Your task to perform on an android device: change the clock display to digital Image 0: 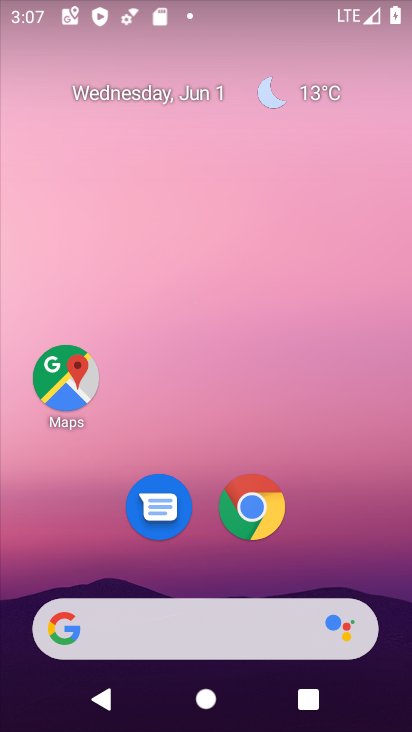
Step 0: drag from (334, 586) to (183, 237)
Your task to perform on an android device: change the clock display to digital Image 1: 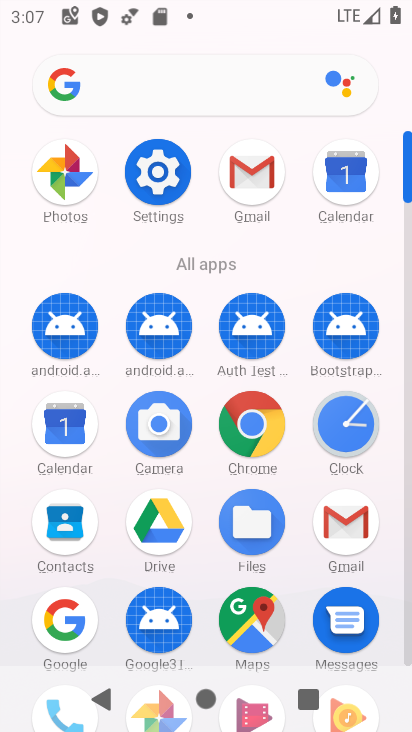
Step 1: click (328, 445)
Your task to perform on an android device: change the clock display to digital Image 2: 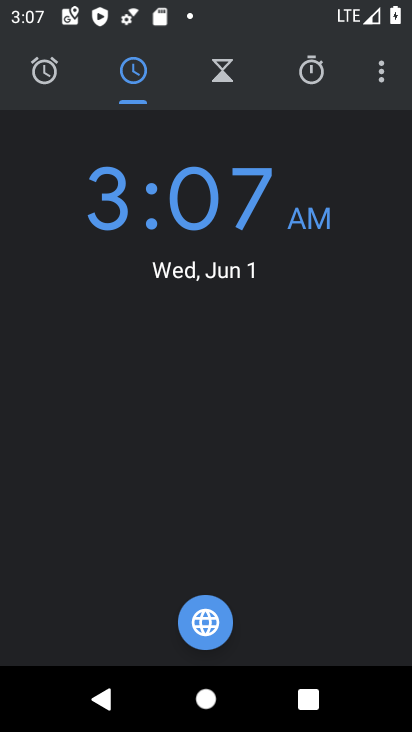
Step 2: click (384, 69)
Your task to perform on an android device: change the clock display to digital Image 3: 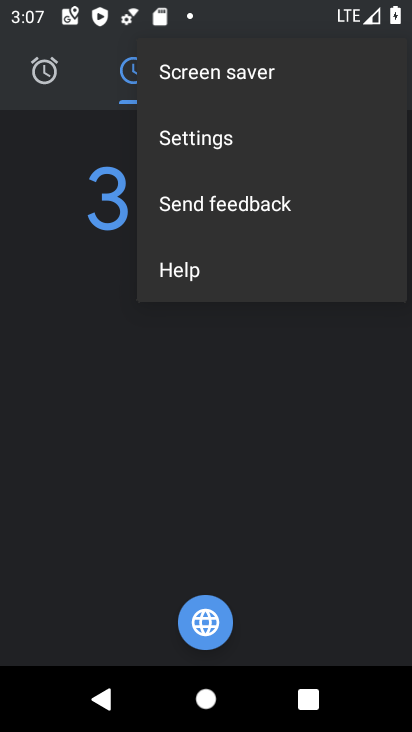
Step 3: click (235, 142)
Your task to perform on an android device: change the clock display to digital Image 4: 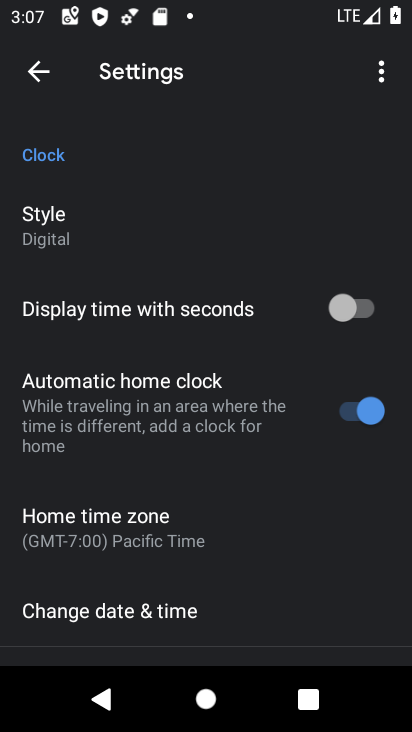
Step 4: task complete